Your task to perform on an android device: show emergency info Image 0: 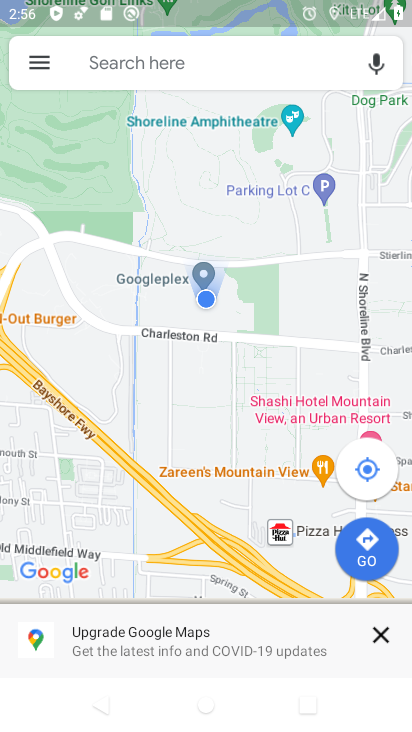
Step 0: press home button
Your task to perform on an android device: show emergency info Image 1: 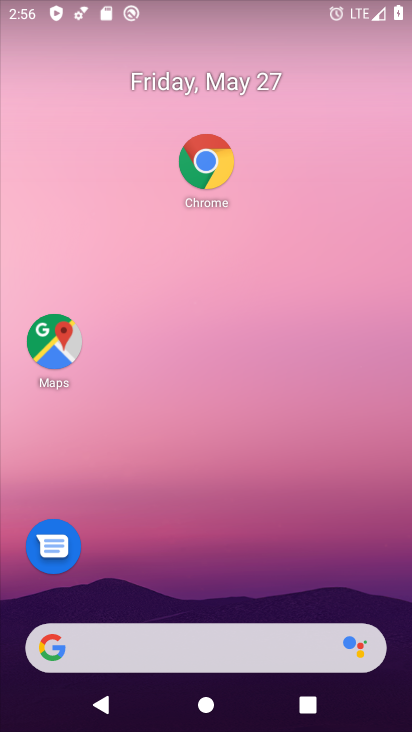
Step 1: drag from (172, 531) to (220, 203)
Your task to perform on an android device: show emergency info Image 2: 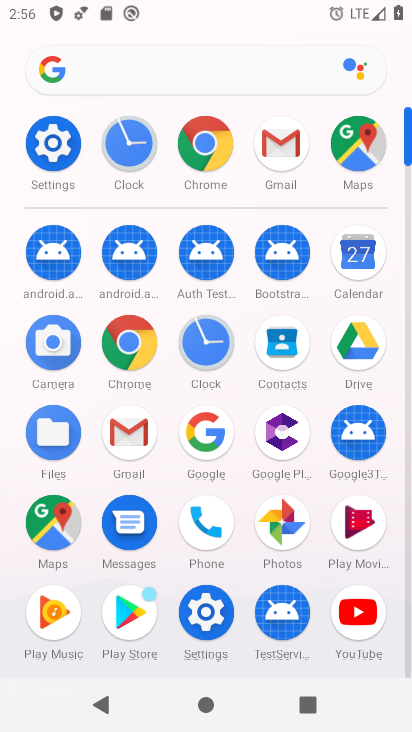
Step 2: click (53, 147)
Your task to perform on an android device: show emergency info Image 3: 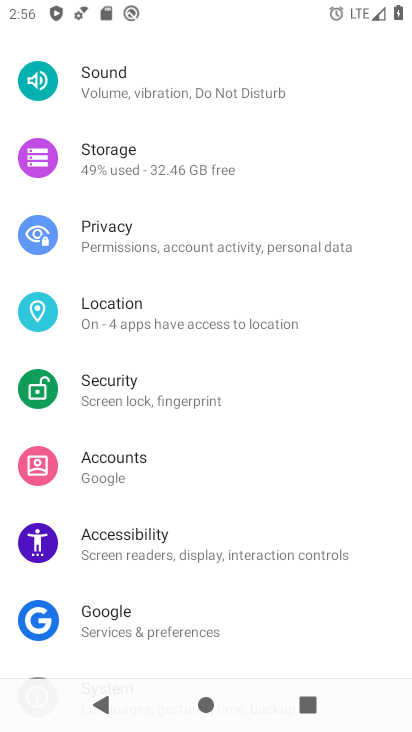
Step 3: drag from (218, 606) to (348, 209)
Your task to perform on an android device: show emergency info Image 4: 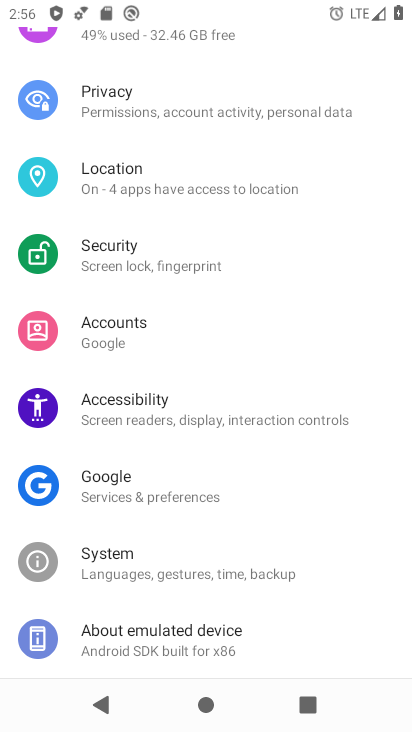
Step 4: click (163, 636)
Your task to perform on an android device: show emergency info Image 5: 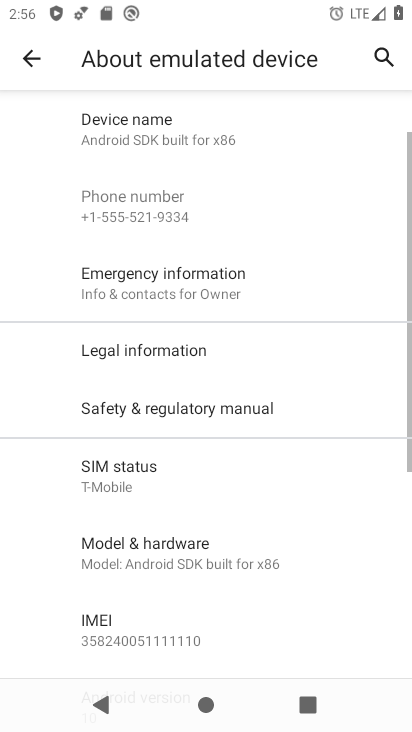
Step 5: click (186, 295)
Your task to perform on an android device: show emergency info Image 6: 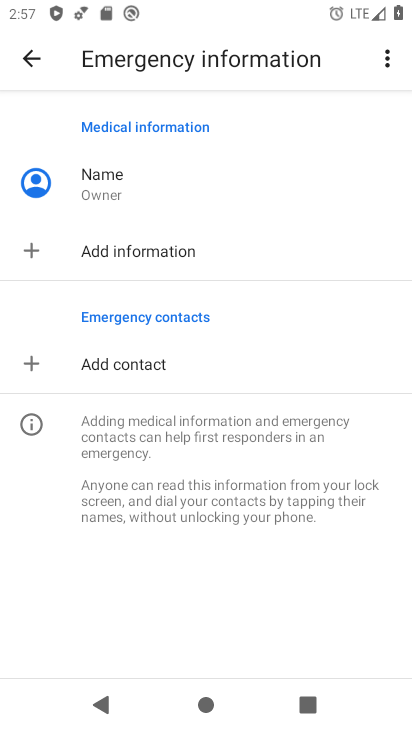
Step 6: task complete